Your task to perform on an android device: open the mobile data screen to see how much data has been used Image 0: 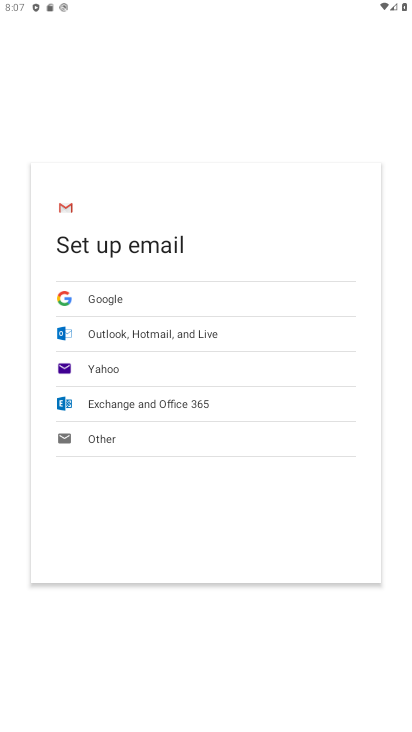
Step 0: press home button
Your task to perform on an android device: open the mobile data screen to see how much data has been used Image 1: 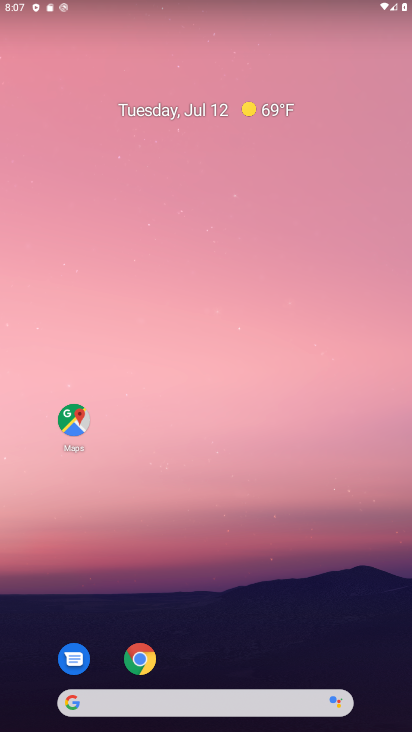
Step 1: drag from (214, 674) to (197, 251)
Your task to perform on an android device: open the mobile data screen to see how much data has been used Image 2: 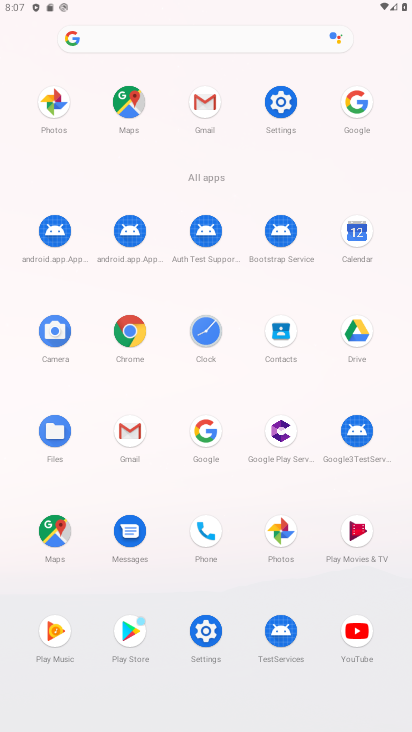
Step 2: click (279, 101)
Your task to perform on an android device: open the mobile data screen to see how much data has been used Image 3: 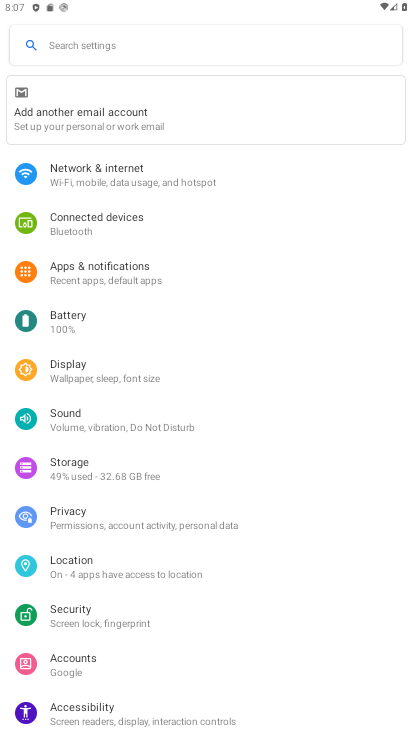
Step 3: click (77, 176)
Your task to perform on an android device: open the mobile data screen to see how much data has been used Image 4: 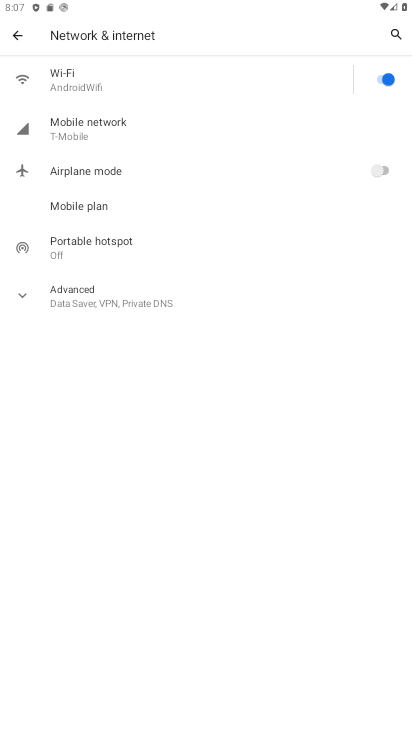
Step 4: click (93, 123)
Your task to perform on an android device: open the mobile data screen to see how much data has been used Image 5: 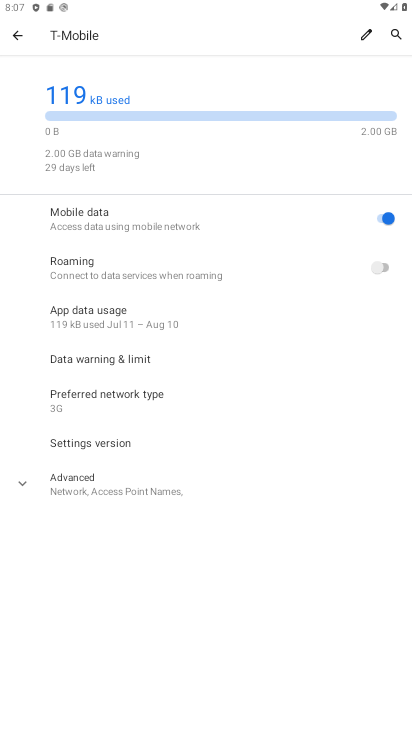
Step 5: click (83, 315)
Your task to perform on an android device: open the mobile data screen to see how much data has been used Image 6: 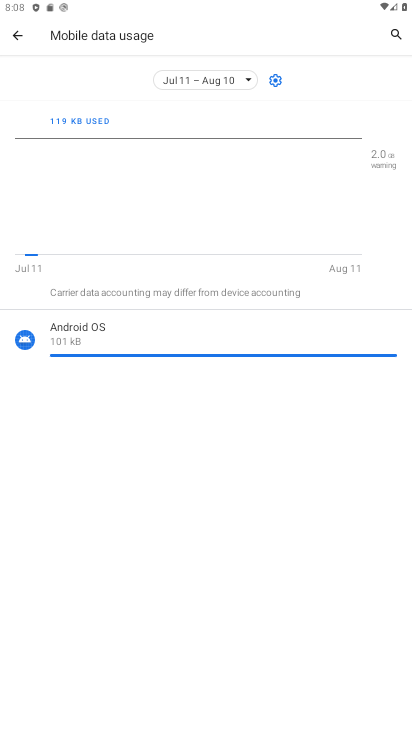
Step 6: task complete